Your task to perform on an android device: toggle location history Image 0: 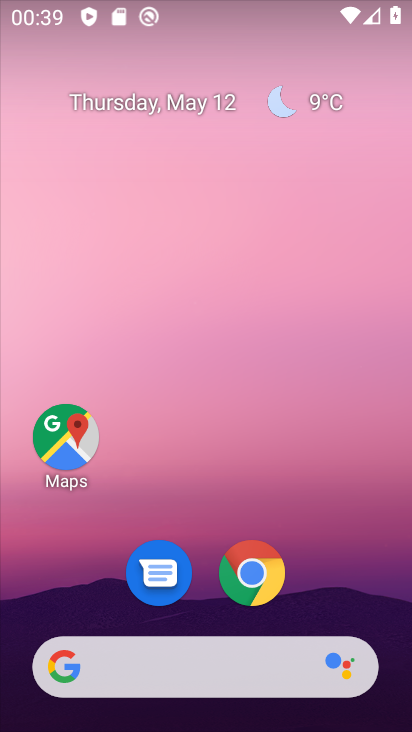
Step 0: drag from (203, 585) to (260, 30)
Your task to perform on an android device: toggle location history Image 1: 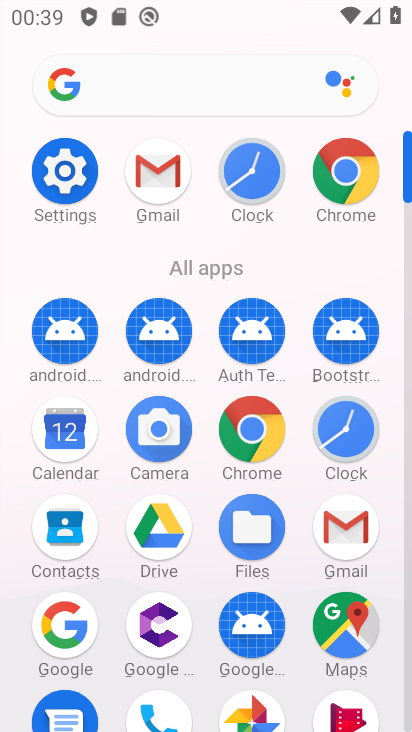
Step 1: click (78, 201)
Your task to perform on an android device: toggle location history Image 2: 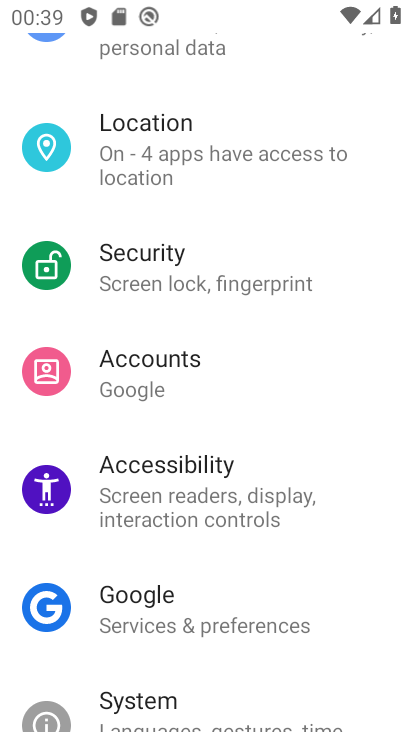
Step 2: click (219, 171)
Your task to perform on an android device: toggle location history Image 3: 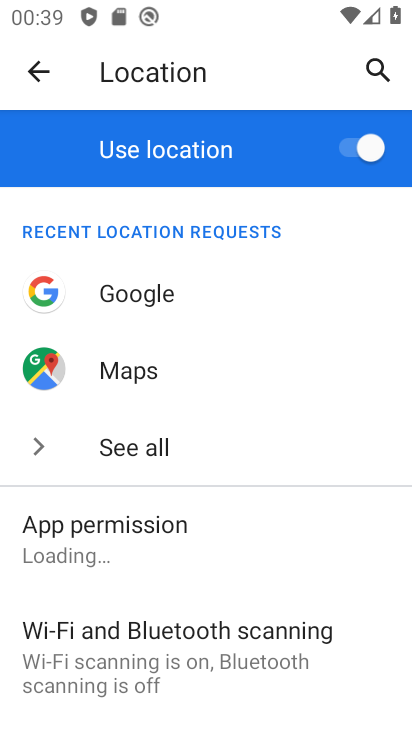
Step 3: drag from (187, 601) to (236, 228)
Your task to perform on an android device: toggle location history Image 4: 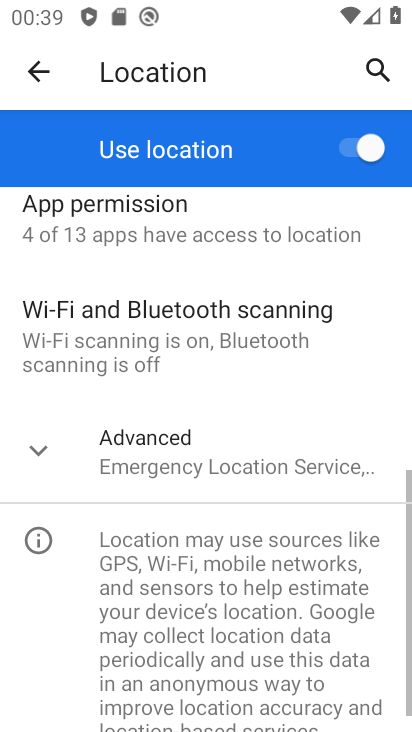
Step 4: click (177, 474)
Your task to perform on an android device: toggle location history Image 5: 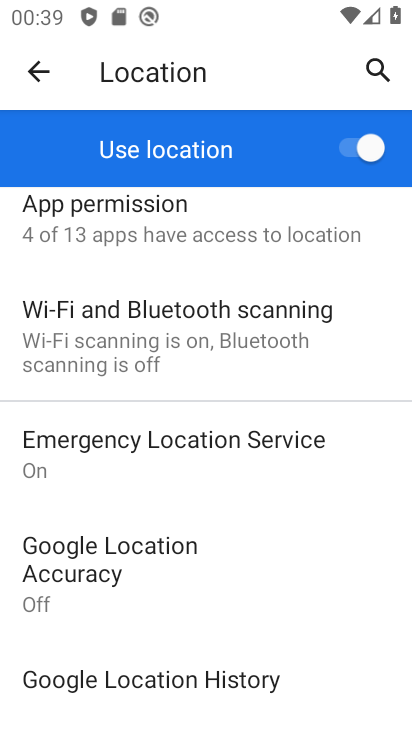
Step 5: click (165, 690)
Your task to perform on an android device: toggle location history Image 6: 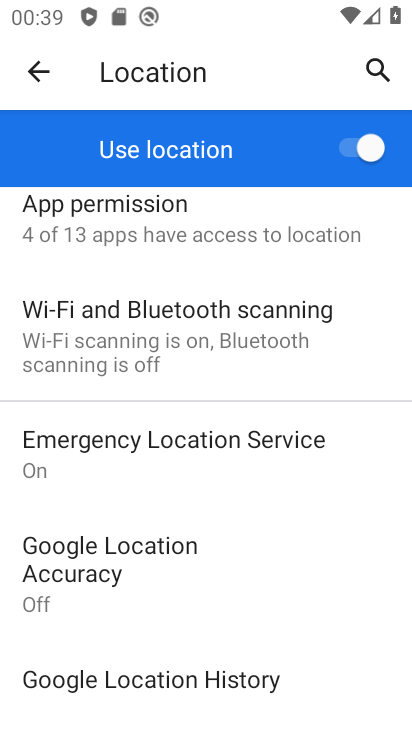
Step 6: click (166, 677)
Your task to perform on an android device: toggle location history Image 7: 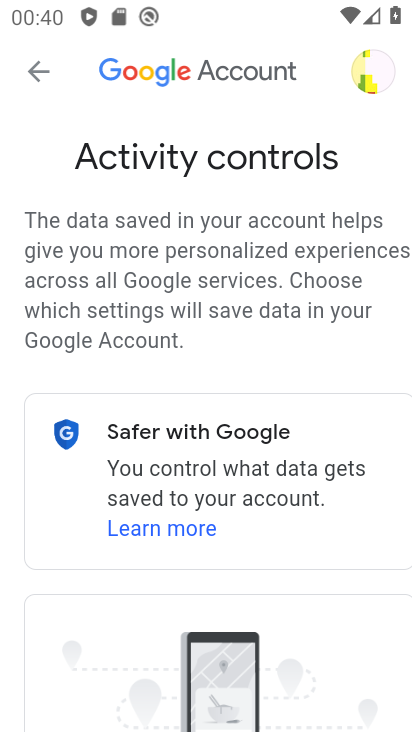
Step 7: drag from (247, 531) to (285, 76)
Your task to perform on an android device: toggle location history Image 8: 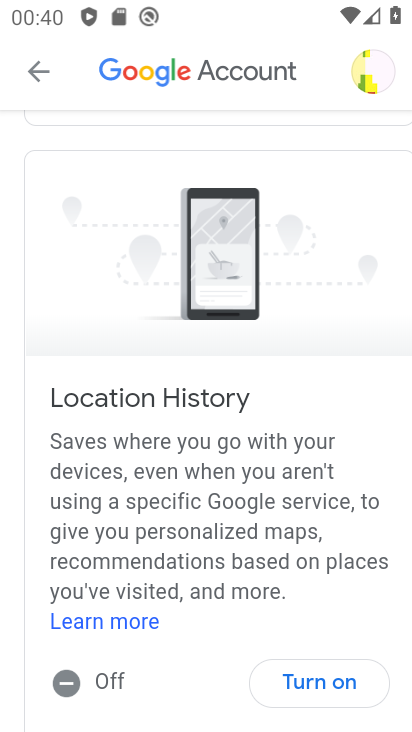
Step 8: drag from (195, 492) to (213, 306)
Your task to perform on an android device: toggle location history Image 9: 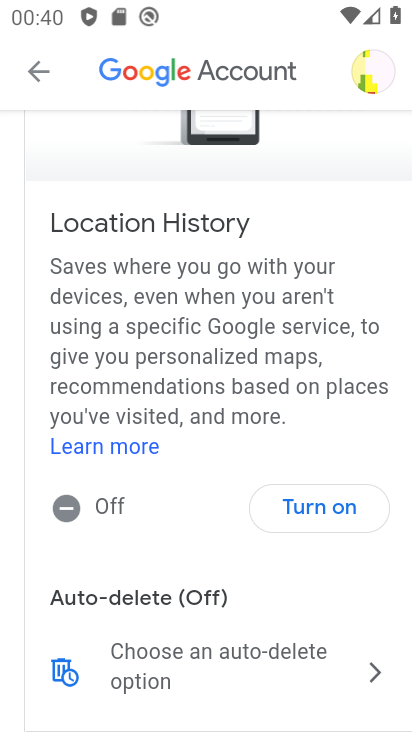
Step 9: click (273, 508)
Your task to perform on an android device: toggle location history Image 10: 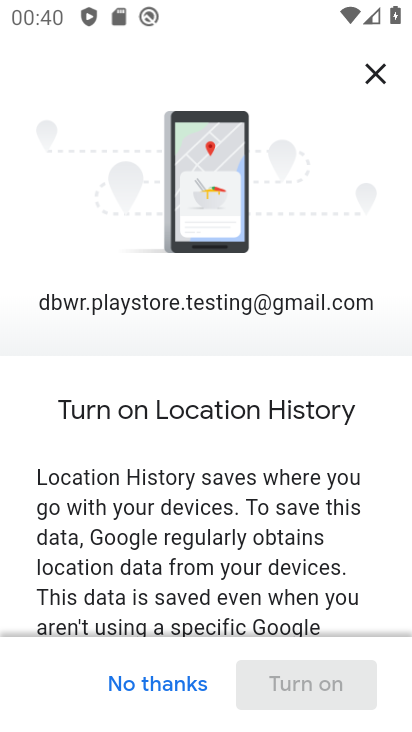
Step 10: drag from (304, 563) to (320, 21)
Your task to perform on an android device: toggle location history Image 11: 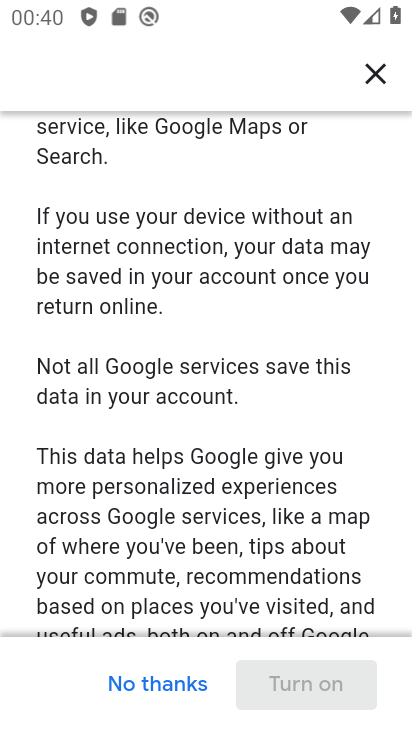
Step 11: drag from (206, 474) to (259, 138)
Your task to perform on an android device: toggle location history Image 12: 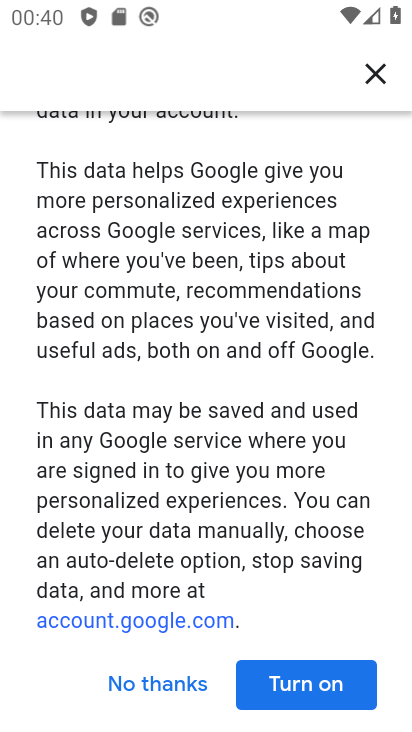
Step 12: click (333, 694)
Your task to perform on an android device: toggle location history Image 13: 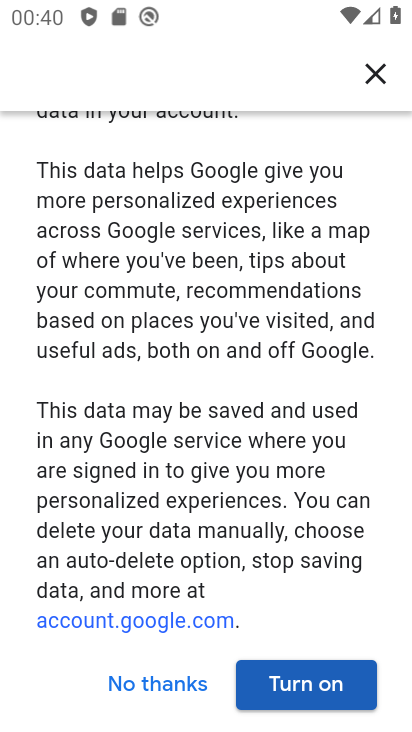
Step 13: click (333, 693)
Your task to perform on an android device: toggle location history Image 14: 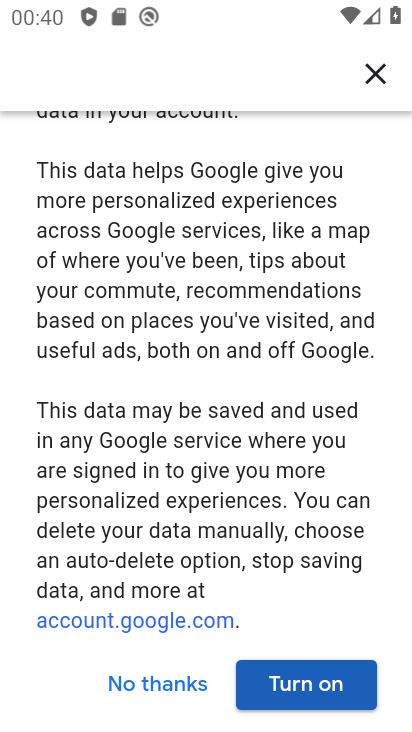
Step 14: click (333, 693)
Your task to perform on an android device: toggle location history Image 15: 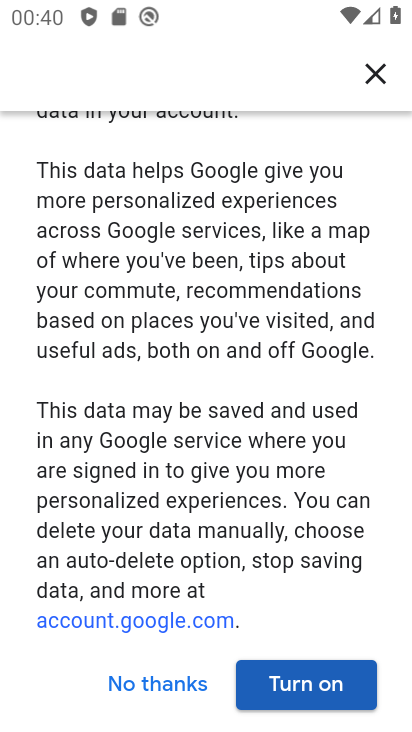
Step 15: click (333, 693)
Your task to perform on an android device: toggle location history Image 16: 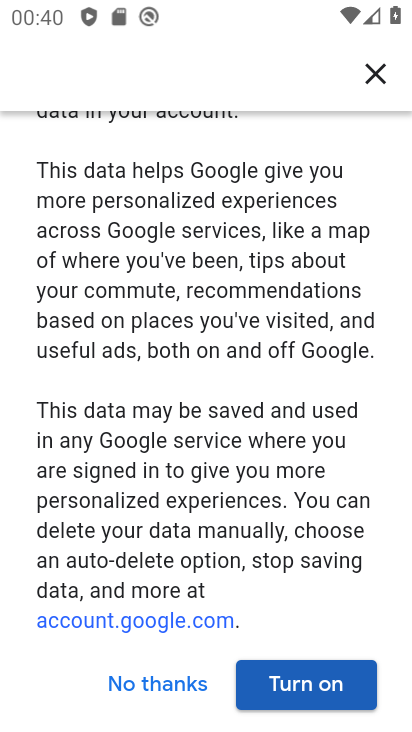
Step 16: click (333, 692)
Your task to perform on an android device: toggle location history Image 17: 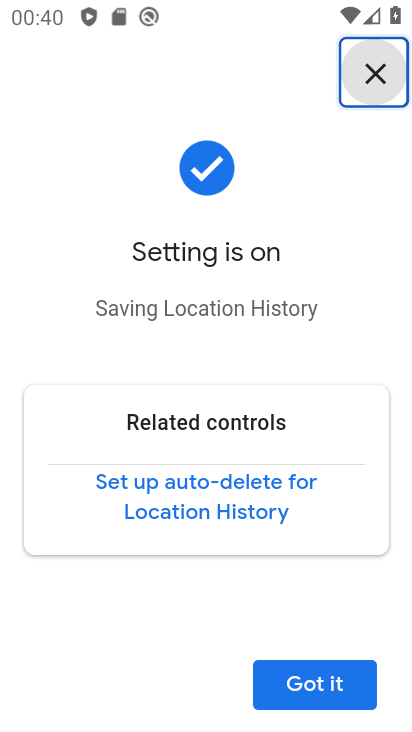
Step 17: click (333, 692)
Your task to perform on an android device: toggle location history Image 18: 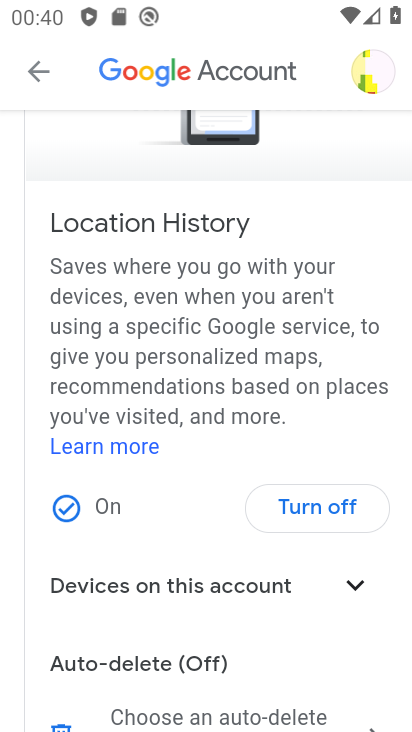
Step 18: task complete